Your task to perform on an android device: Open CNN.com Image 0: 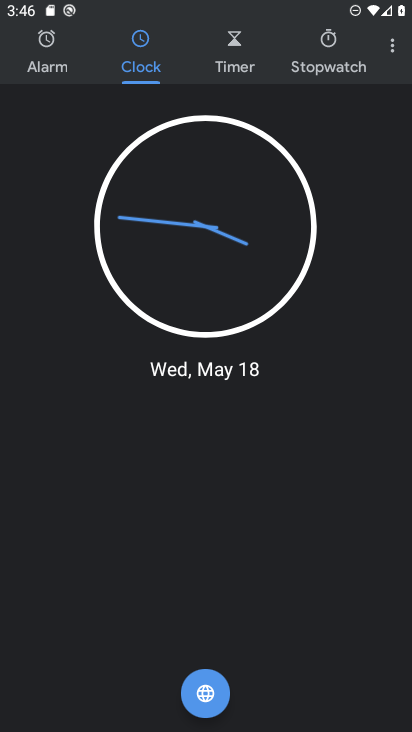
Step 0: press home button
Your task to perform on an android device: Open CNN.com Image 1: 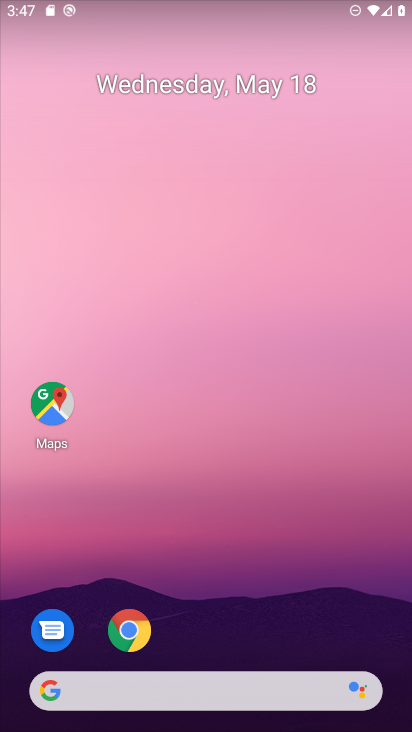
Step 1: click (128, 621)
Your task to perform on an android device: Open CNN.com Image 2: 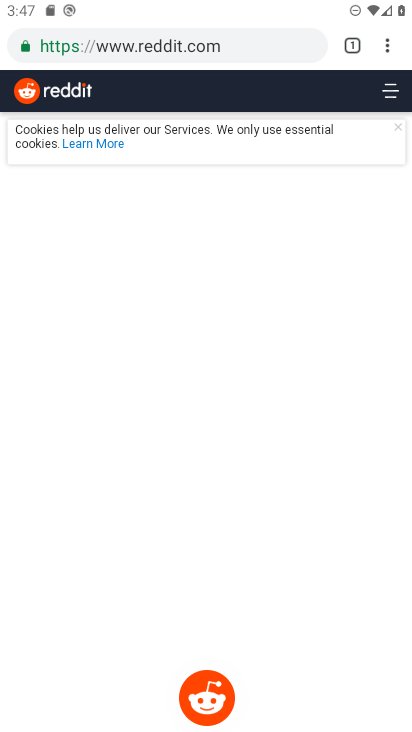
Step 2: click (350, 45)
Your task to perform on an android device: Open CNN.com Image 3: 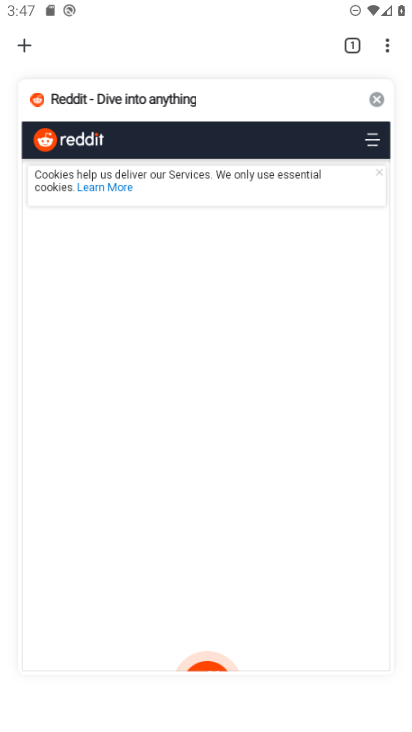
Step 3: click (26, 39)
Your task to perform on an android device: Open CNN.com Image 4: 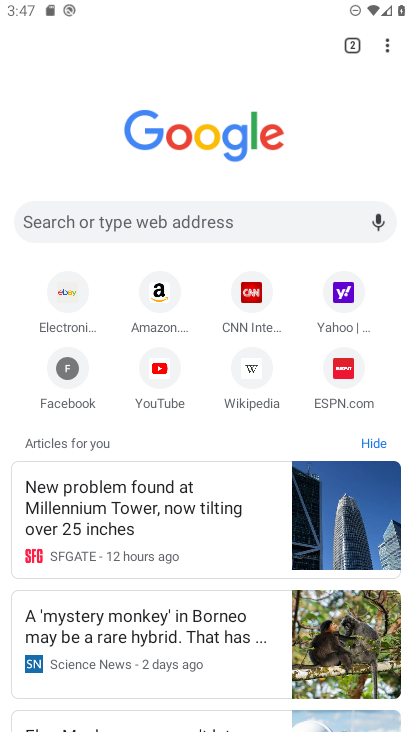
Step 4: click (249, 303)
Your task to perform on an android device: Open CNN.com Image 5: 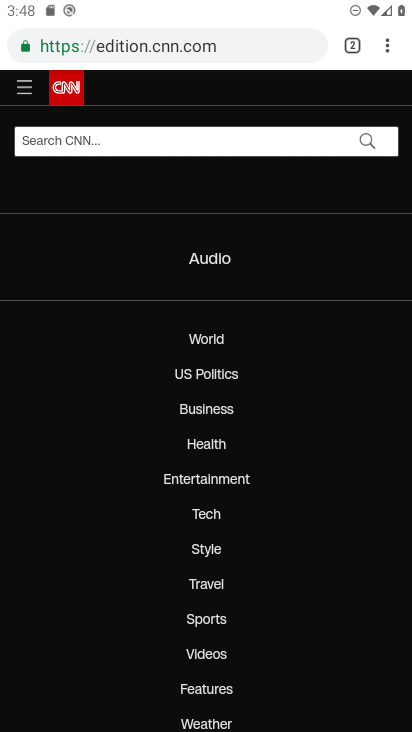
Step 5: task complete